Your task to perform on an android device: Go to CNN.com Image 0: 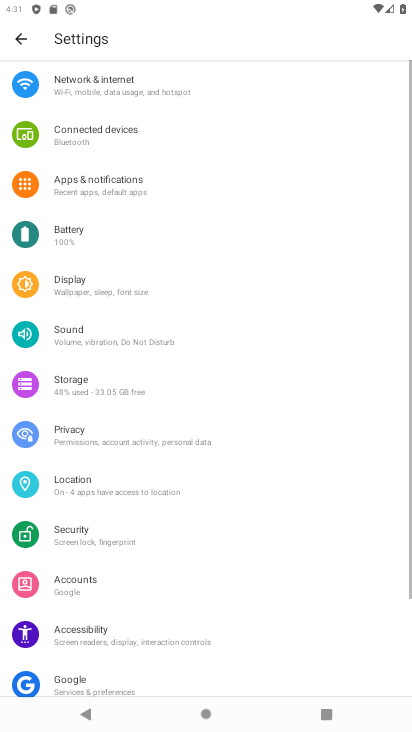
Step 0: press home button
Your task to perform on an android device: Go to CNN.com Image 1: 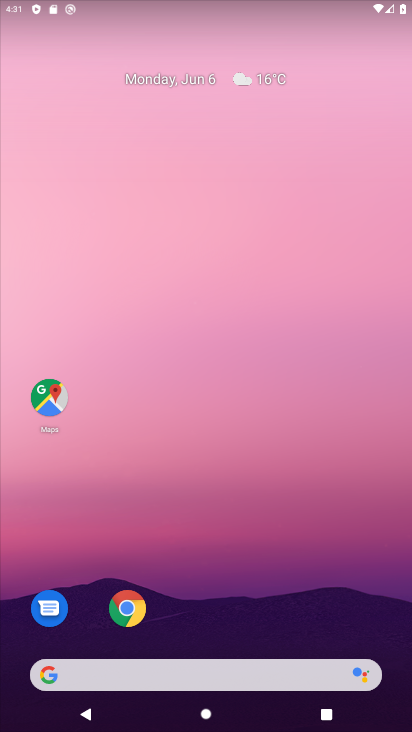
Step 1: click (130, 628)
Your task to perform on an android device: Go to CNN.com Image 2: 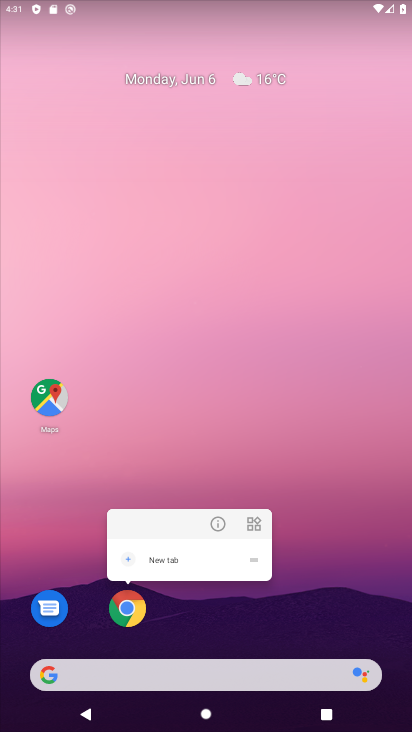
Step 2: click (134, 614)
Your task to perform on an android device: Go to CNN.com Image 3: 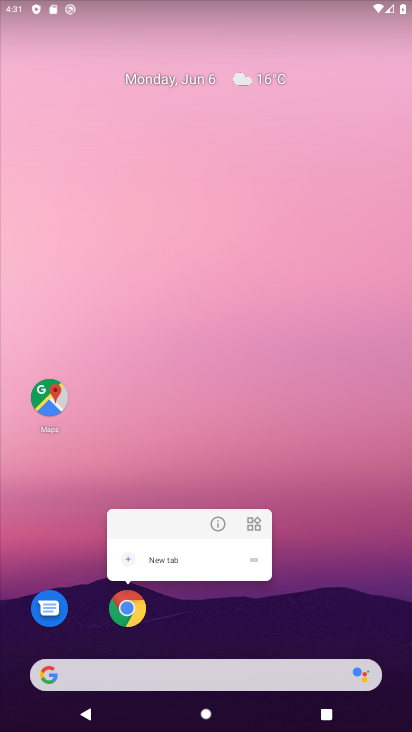
Step 3: click (134, 614)
Your task to perform on an android device: Go to CNN.com Image 4: 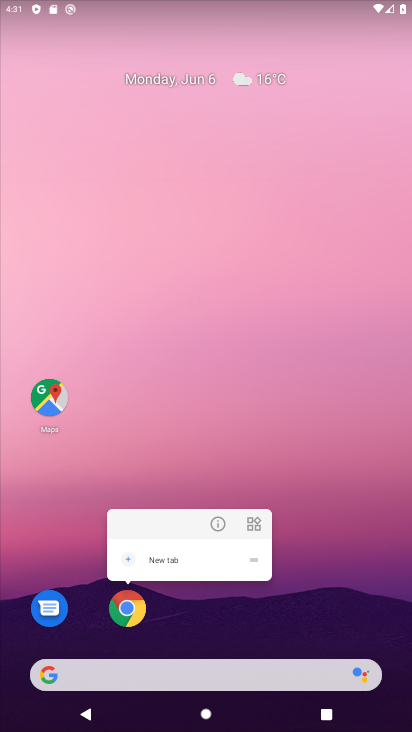
Step 4: click (132, 614)
Your task to perform on an android device: Go to CNN.com Image 5: 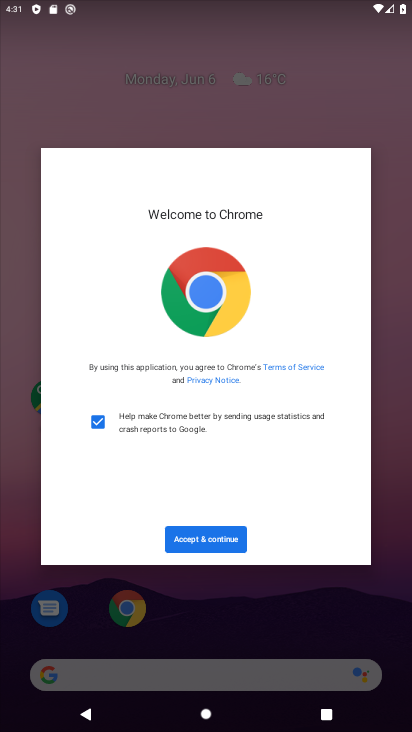
Step 5: click (220, 540)
Your task to perform on an android device: Go to CNN.com Image 6: 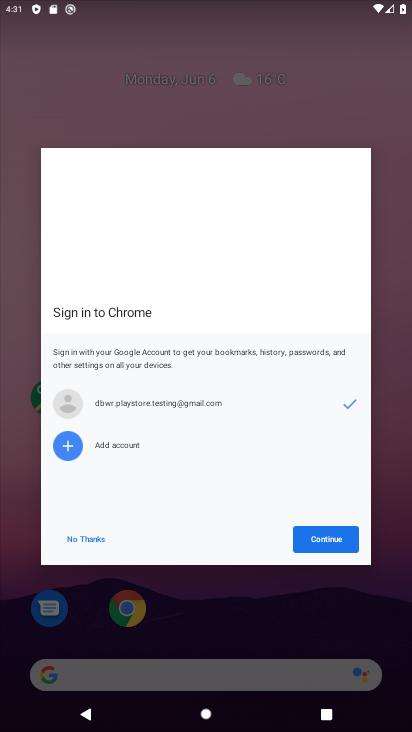
Step 6: click (328, 530)
Your task to perform on an android device: Go to CNN.com Image 7: 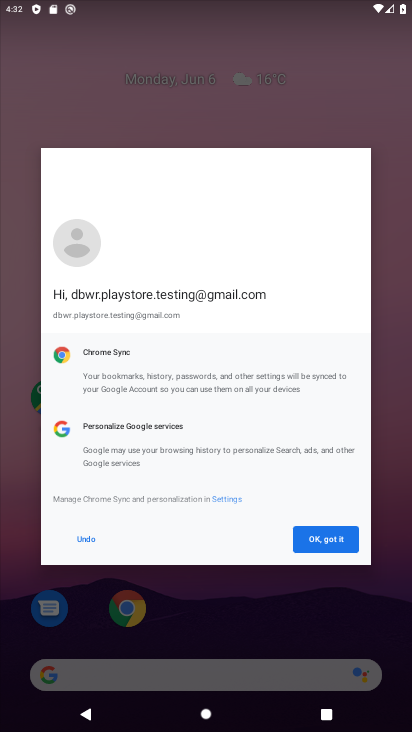
Step 7: click (313, 538)
Your task to perform on an android device: Go to CNN.com Image 8: 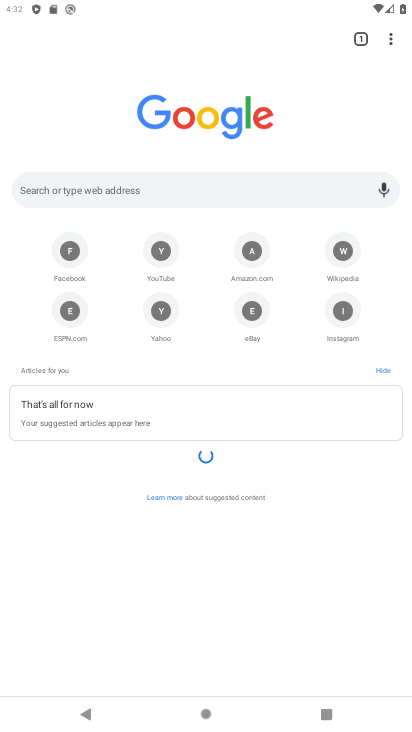
Step 8: click (195, 192)
Your task to perform on an android device: Go to CNN.com Image 9: 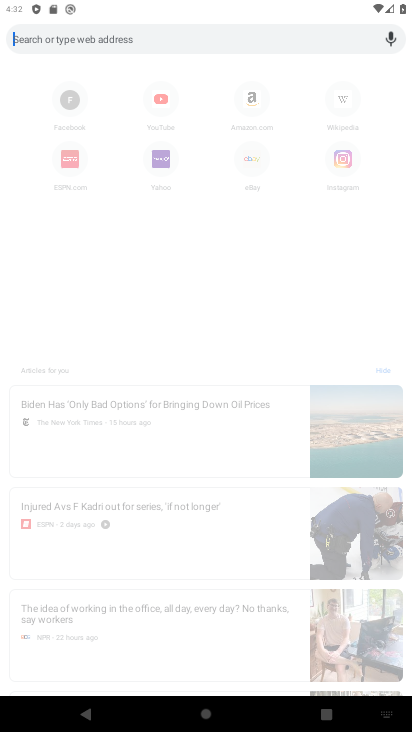
Step 9: type "CNN.com"
Your task to perform on an android device: Go to CNN.com Image 10: 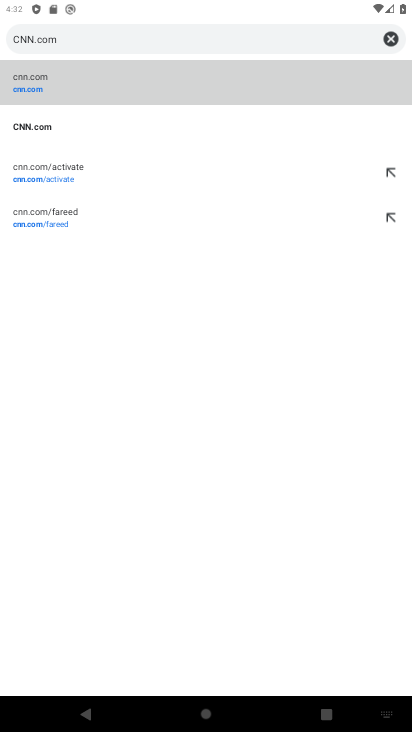
Step 10: click (146, 100)
Your task to perform on an android device: Go to CNN.com Image 11: 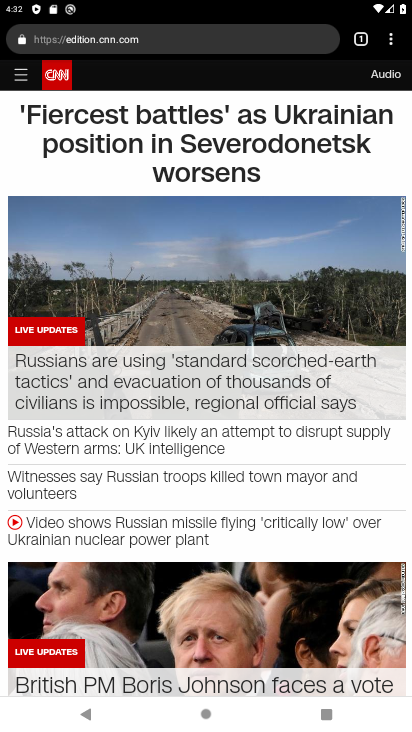
Step 11: task complete